Your task to perform on an android device: Go to display settings Image 0: 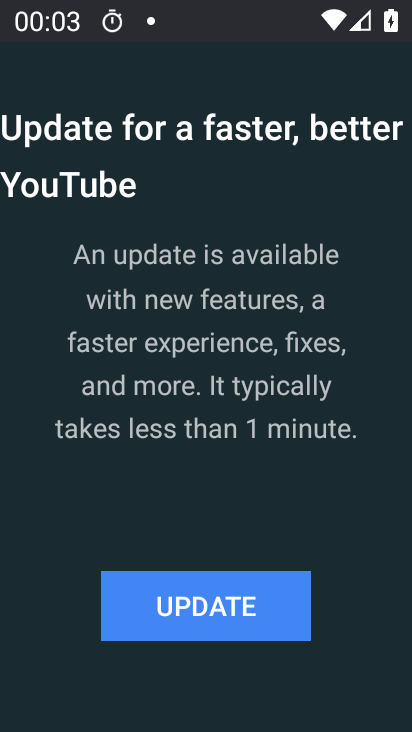
Step 0: press home button
Your task to perform on an android device: Go to display settings Image 1: 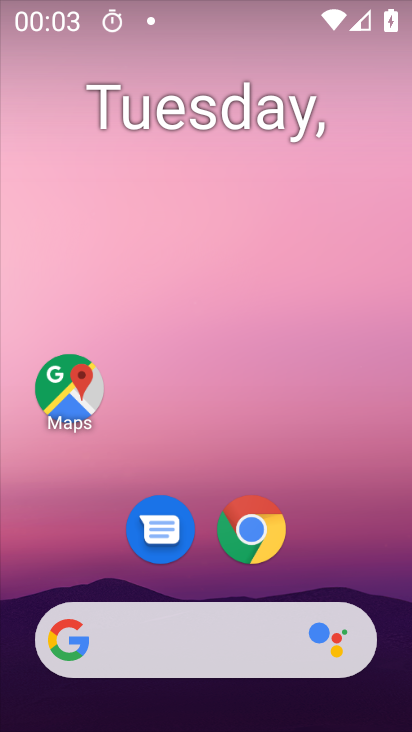
Step 1: drag from (340, 565) to (355, 147)
Your task to perform on an android device: Go to display settings Image 2: 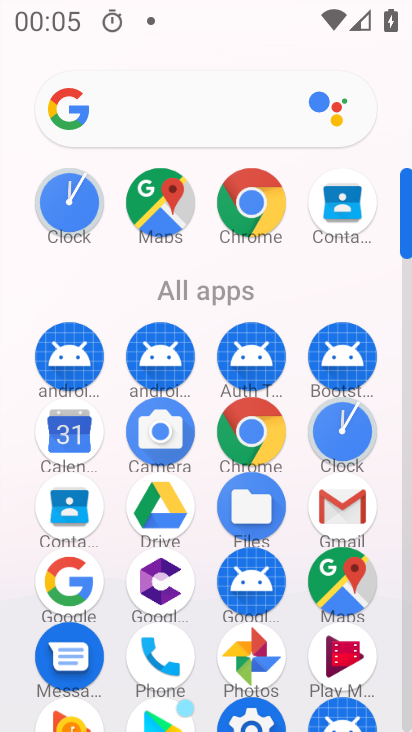
Step 2: click (262, 714)
Your task to perform on an android device: Go to display settings Image 3: 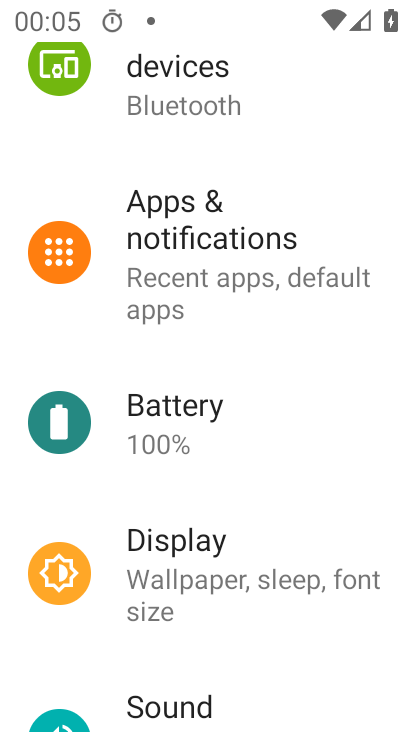
Step 3: click (149, 545)
Your task to perform on an android device: Go to display settings Image 4: 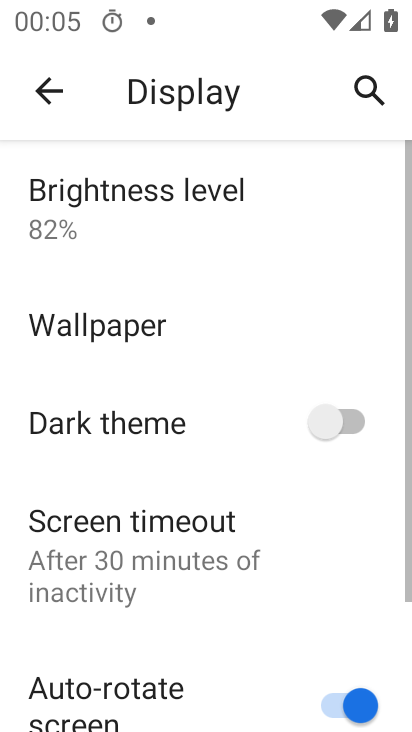
Step 4: task complete